Your task to perform on an android device: Go to calendar. Show me events next week Image 0: 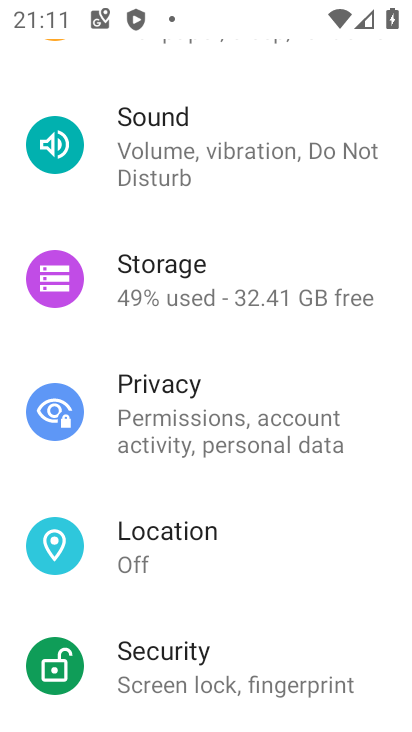
Step 0: press home button
Your task to perform on an android device: Go to calendar. Show me events next week Image 1: 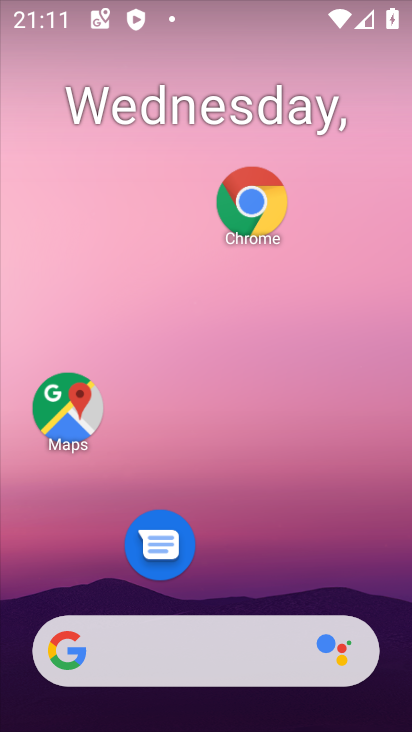
Step 1: click (157, 93)
Your task to perform on an android device: Go to calendar. Show me events next week Image 2: 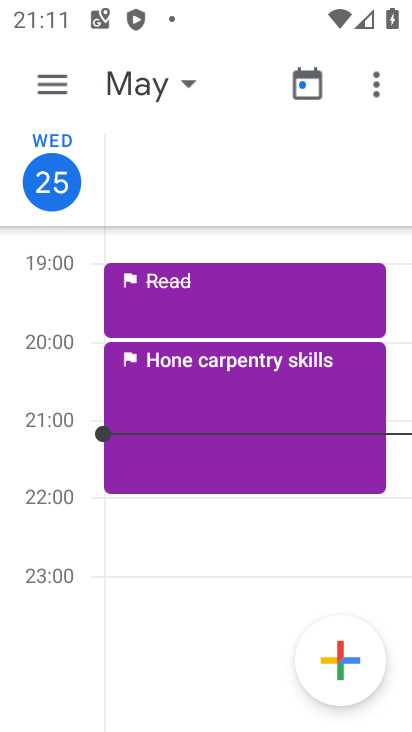
Step 2: click (134, 68)
Your task to perform on an android device: Go to calendar. Show me events next week Image 3: 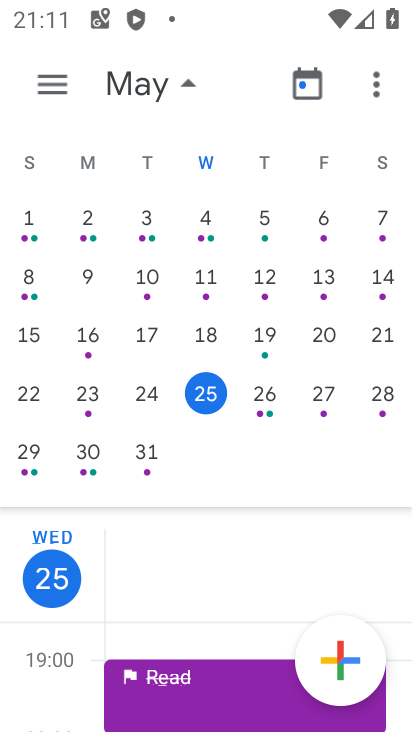
Step 3: click (82, 468)
Your task to perform on an android device: Go to calendar. Show me events next week Image 4: 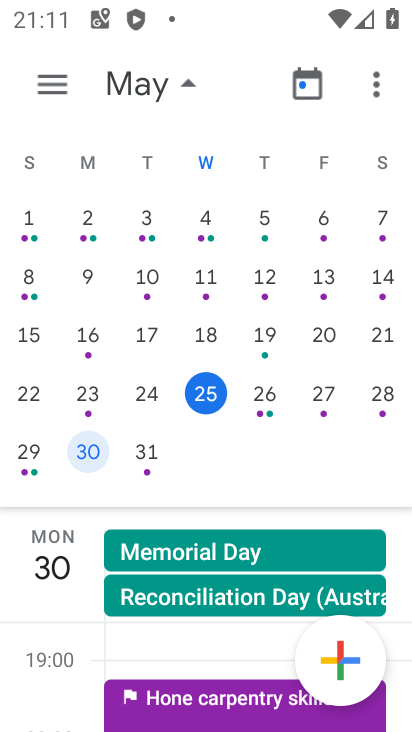
Step 4: task complete